Your task to perform on an android device: turn smart compose on in the gmail app Image 0: 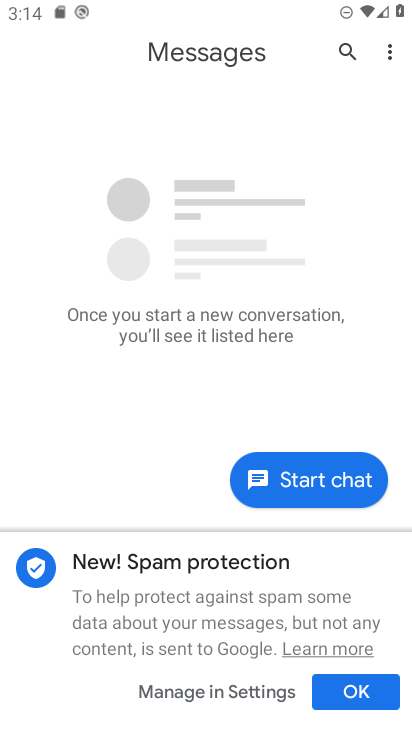
Step 0: press home button
Your task to perform on an android device: turn smart compose on in the gmail app Image 1: 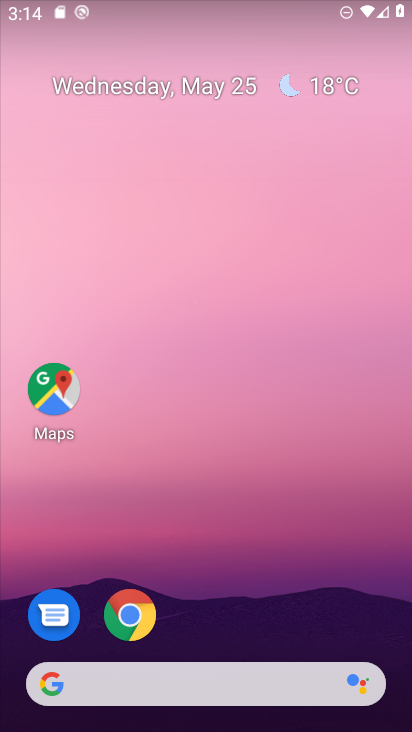
Step 1: drag from (233, 594) to (274, 5)
Your task to perform on an android device: turn smart compose on in the gmail app Image 2: 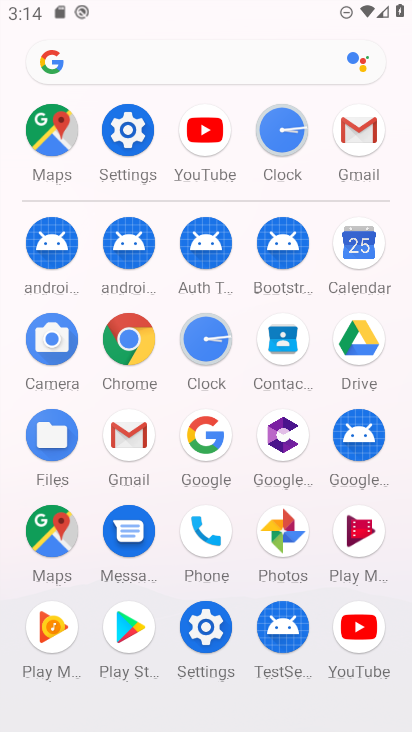
Step 2: click (350, 133)
Your task to perform on an android device: turn smart compose on in the gmail app Image 3: 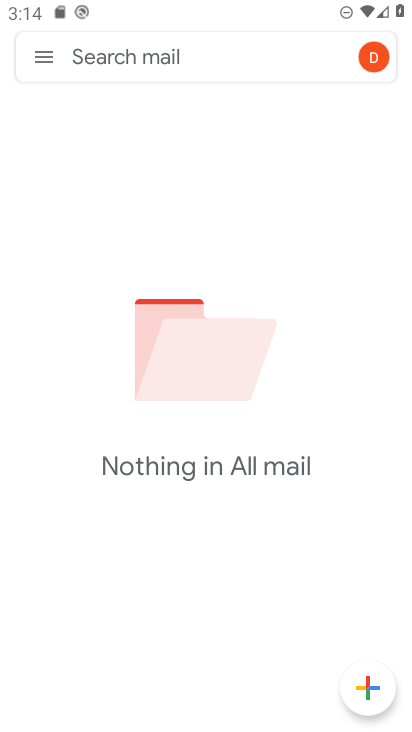
Step 3: click (42, 53)
Your task to perform on an android device: turn smart compose on in the gmail app Image 4: 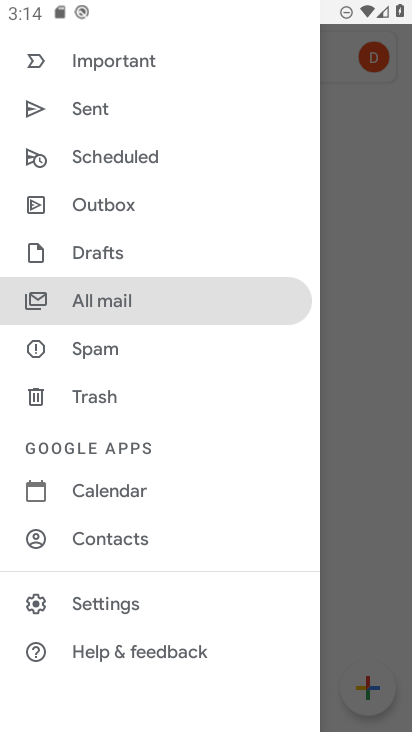
Step 4: click (141, 602)
Your task to perform on an android device: turn smart compose on in the gmail app Image 5: 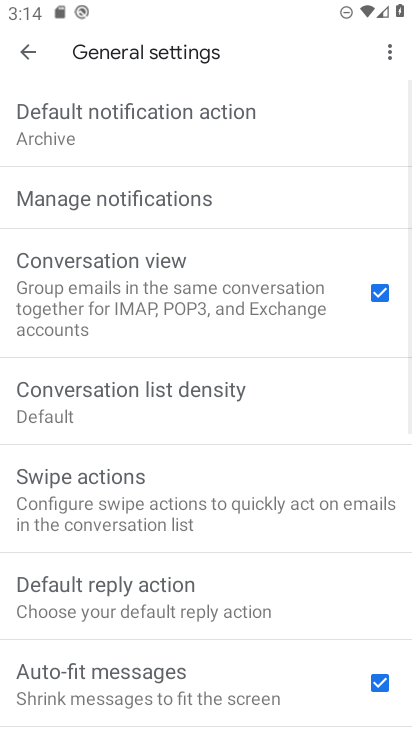
Step 5: drag from (232, 551) to (267, 156)
Your task to perform on an android device: turn smart compose on in the gmail app Image 6: 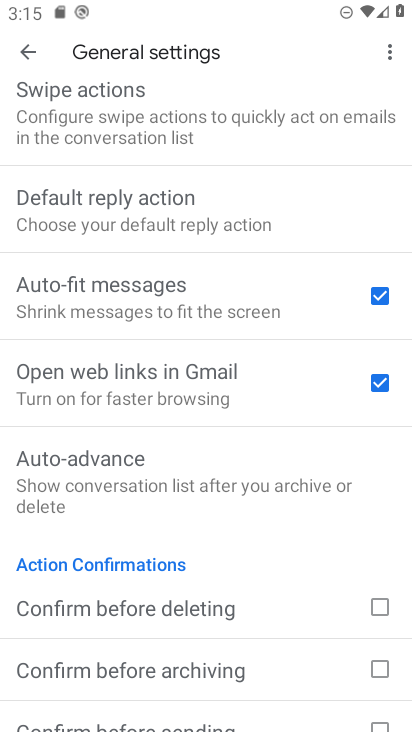
Step 6: click (33, 47)
Your task to perform on an android device: turn smart compose on in the gmail app Image 7: 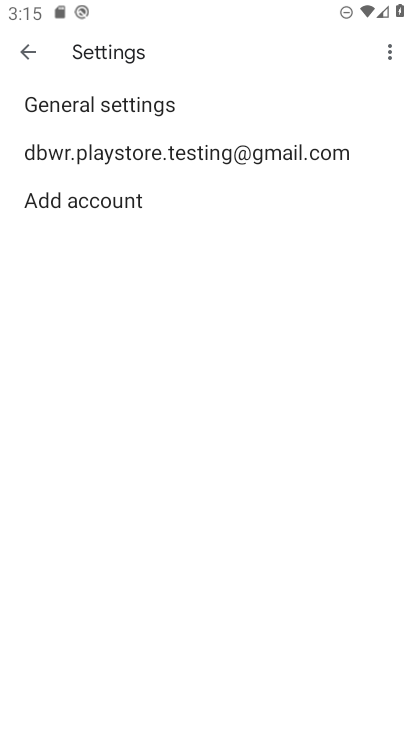
Step 7: click (136, 155)
Your task to perform on an android device: turn smart compose on in the gmail app Image 8: 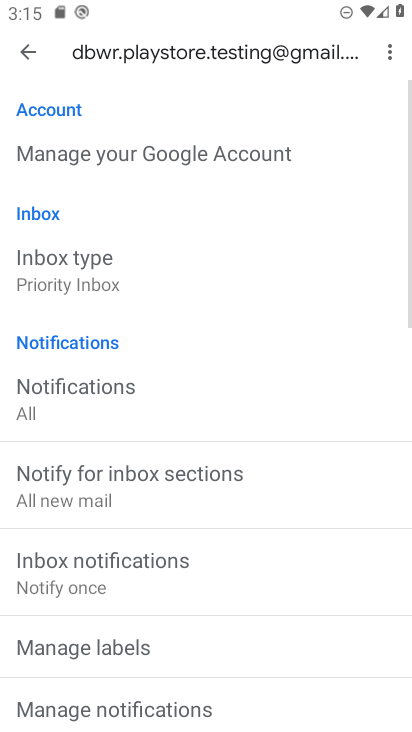
Step 8: task complete